Your task to perform on an android device: change the clock display to show seconds Image 0: 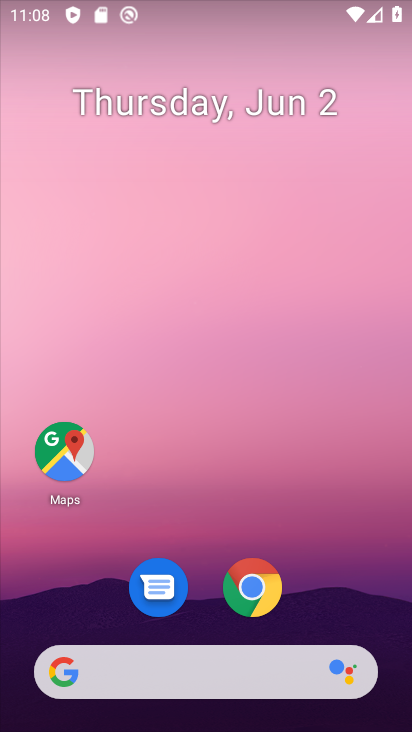
Step 0: drag from (337, 593) to (245, 100)
Your task to perform on an android device: change the clock display to show seconds Image 1: 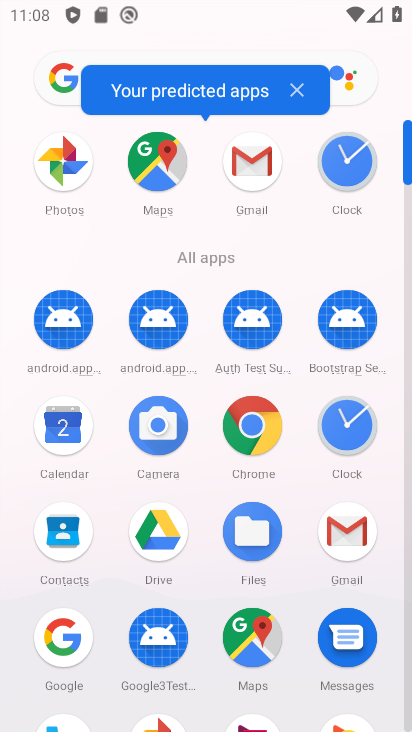
Step 1: click (348, 161)
Your task to perform on an android device: change the clock display to show seconds Image 2: 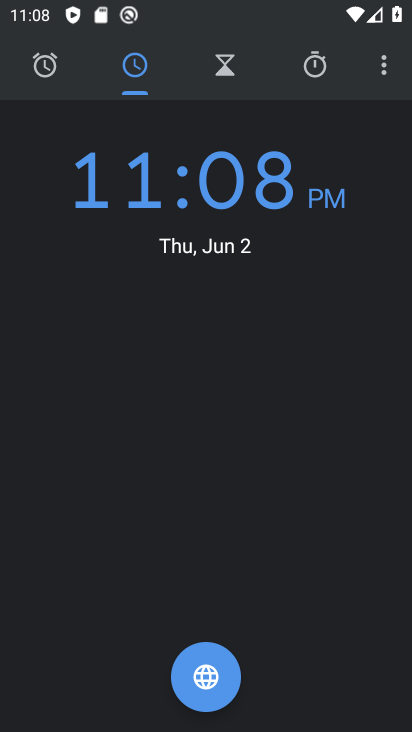
Step 2: click (392, 68)
Your task to perform on an android device: change the clock display to show seconds Image 3: 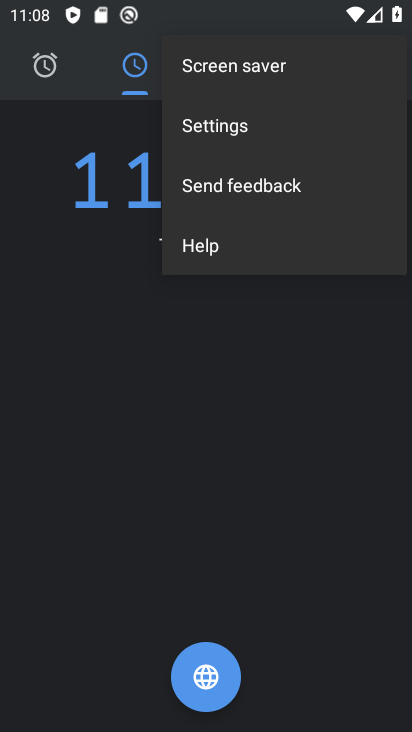
Step 3: click (333, 138)
Your task to perform on an android device: change the clock display to show seconds Image 4: 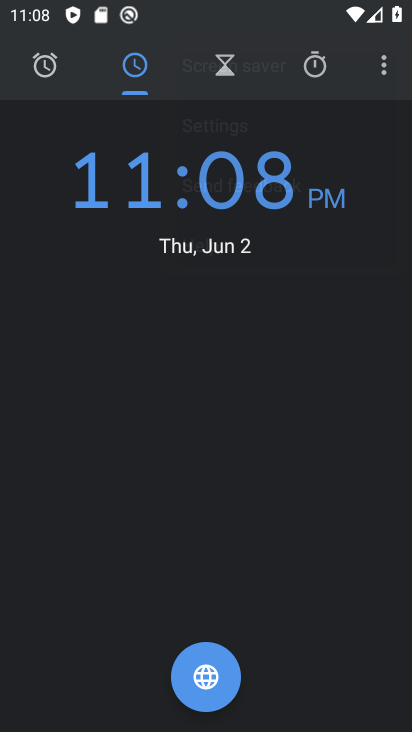
Step 4: click (232, 141)
Your task to perform on an android device: change the clock display to show seconds Image 5: 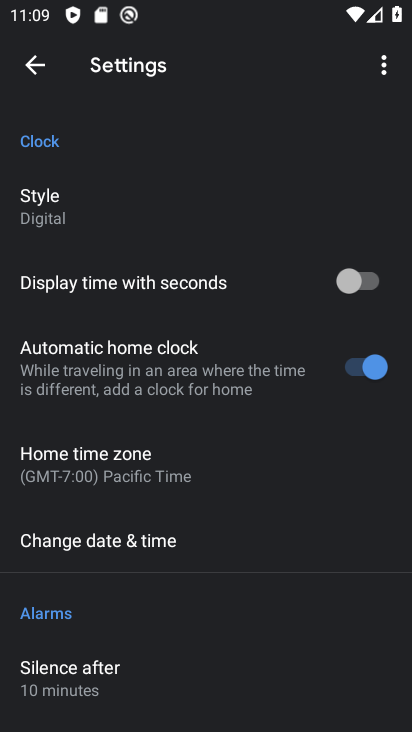
Step 5: click (355, 277)
Your task to perform on an android device: change the clock display to show seconds Image 6: 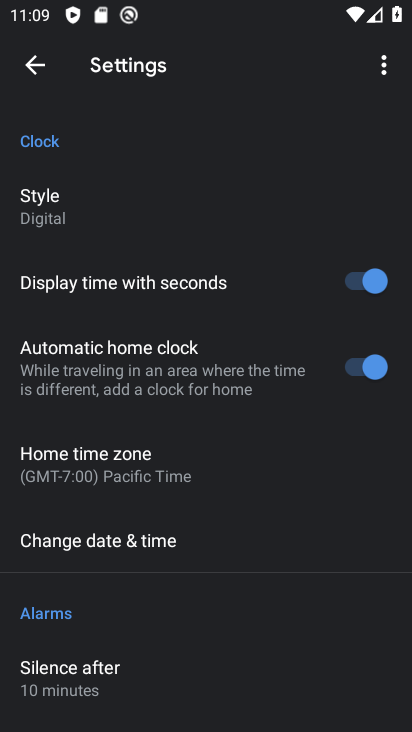
Step 6: task complete